Your task to perform on an android device: Go to CNN.com Image 0: 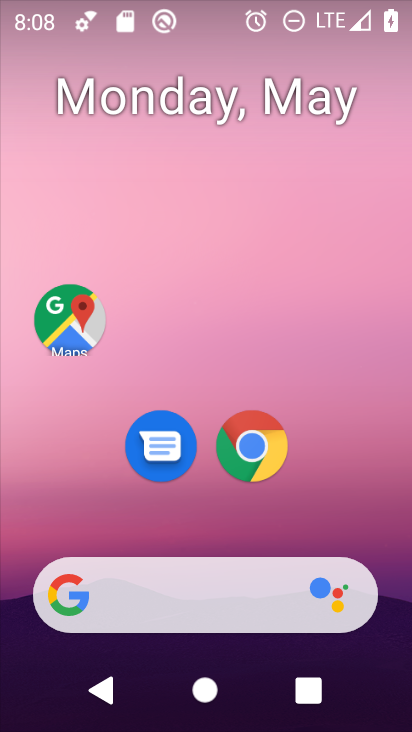
Step 0: click (235, 567)
Your task to perform on an android device: Go to CNN.com Image 1: 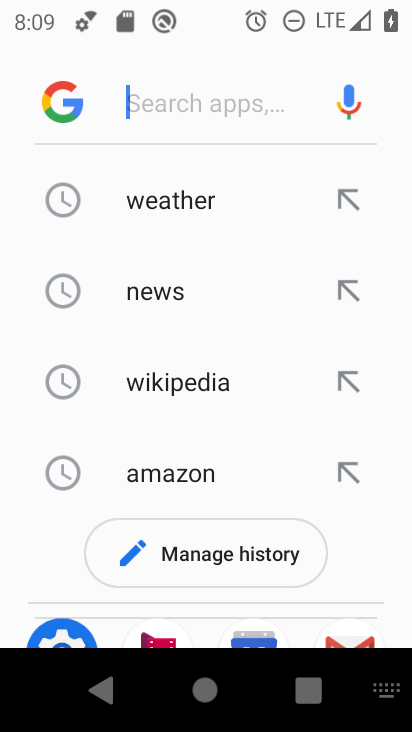
Step 1: type "cnn.com"
Your task to perform on an android device: Go to CNN.com Image 2: 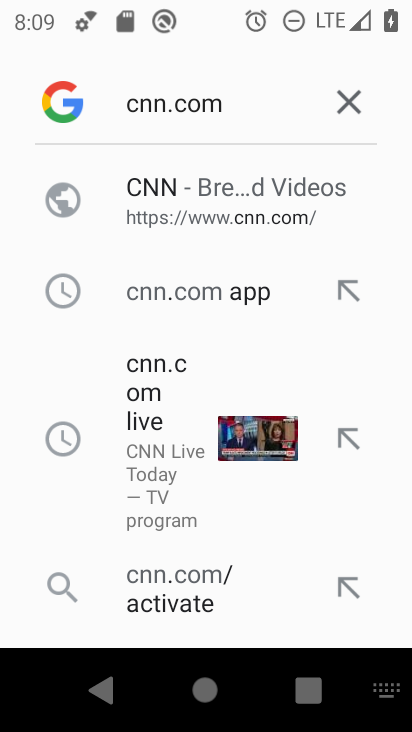
Step 2: click (244, 191)
Your task to perform on an android device: Go to CNN.com Image 3: 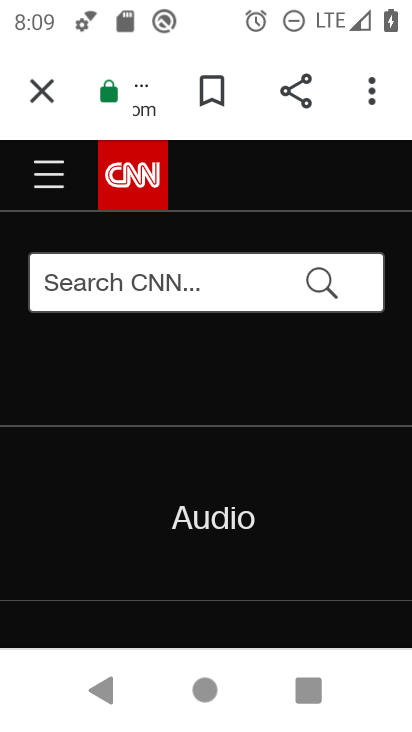
Step 3: task complete